Your task to perform on an android device: Open accessibility settings Image 0: 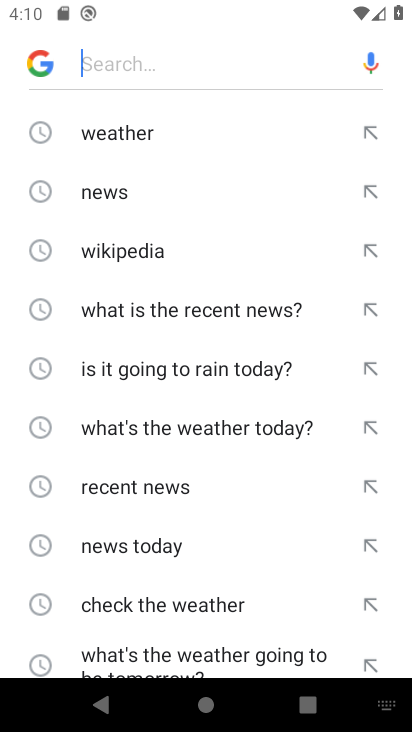
Step 0: press home button
Your task to perform on an android device: Open accessibility settings Image 1: 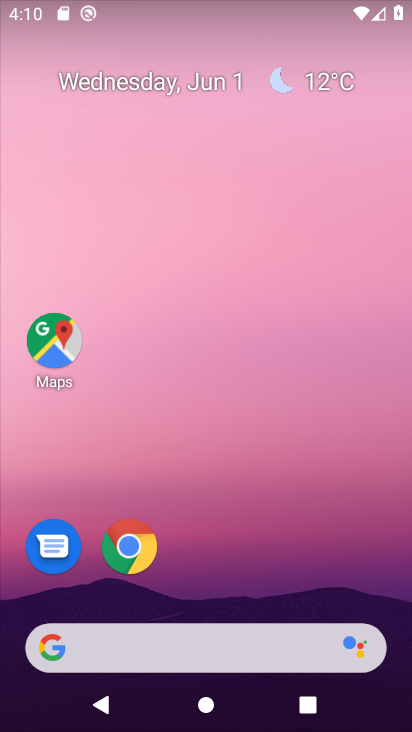
Step 1: drag from (261, 632) to (343, 186)
Your task to perform on an android device: Open accessibility settings Image 2: 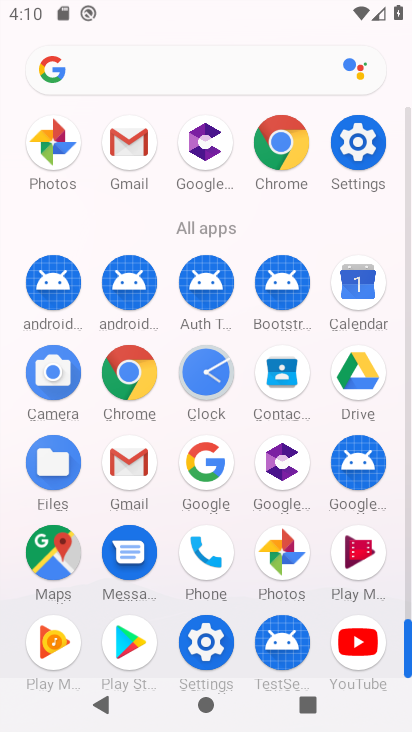
Step 2: click (226, 637)
Your task to perform on an android device: Open accessibility settings Image 3: 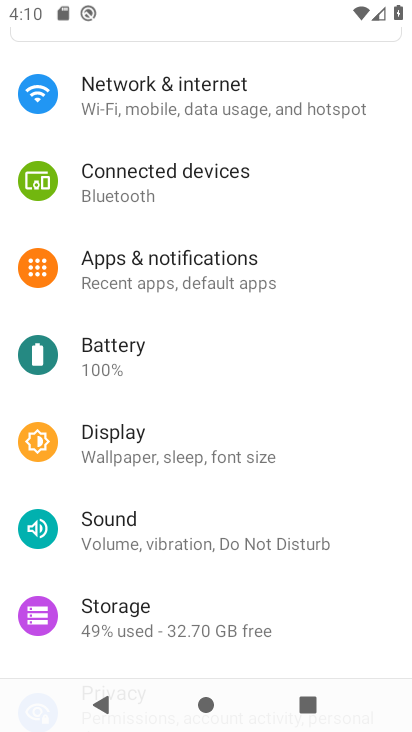
Step 3: drag from (180, 637) to (301, 137)
Your task to perform on an android device: Open accessibility settings Image 4: 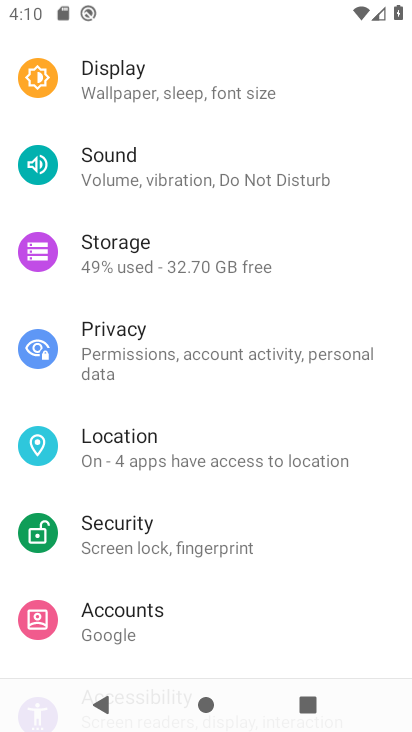
Step 4: drag from (180, 613) to (290, 140)
Your task to perform on an android device: Open accessibility settings Image 5: 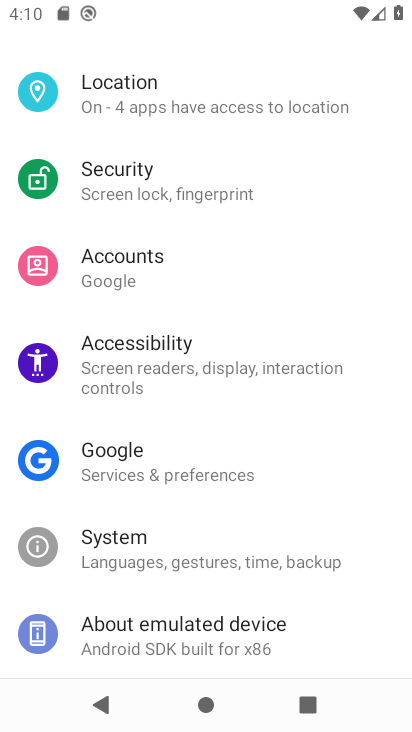
Step 5: click (169, 354)
Your task to perform on an android device: Open accessibility settings Image 6: 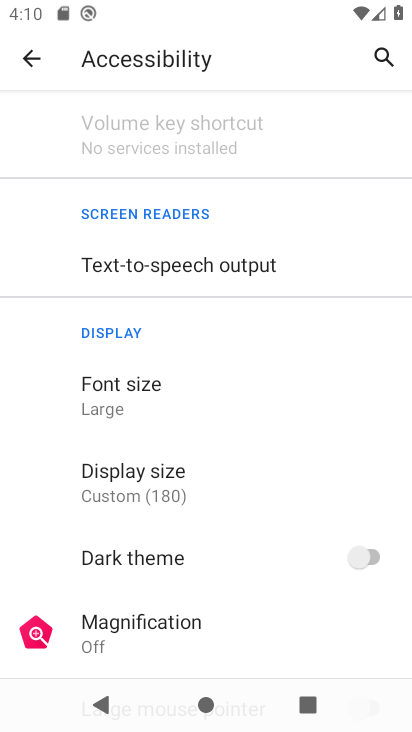
Step 6: task complete